Your task to perform on an android device: open a new tab in the chrome app Image 0: 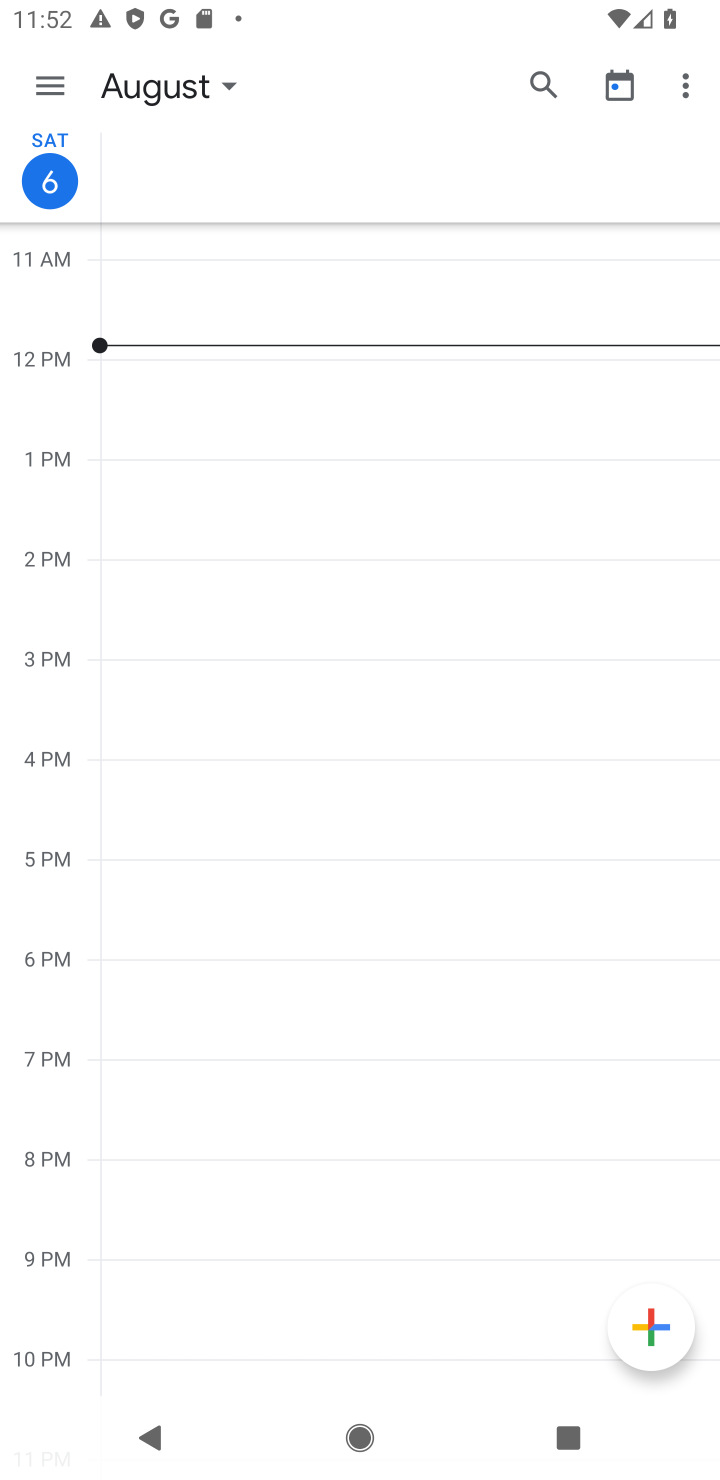
Step 0: press home button
Your task to perform on an android device: open a new tab in the chrome app Image 1: 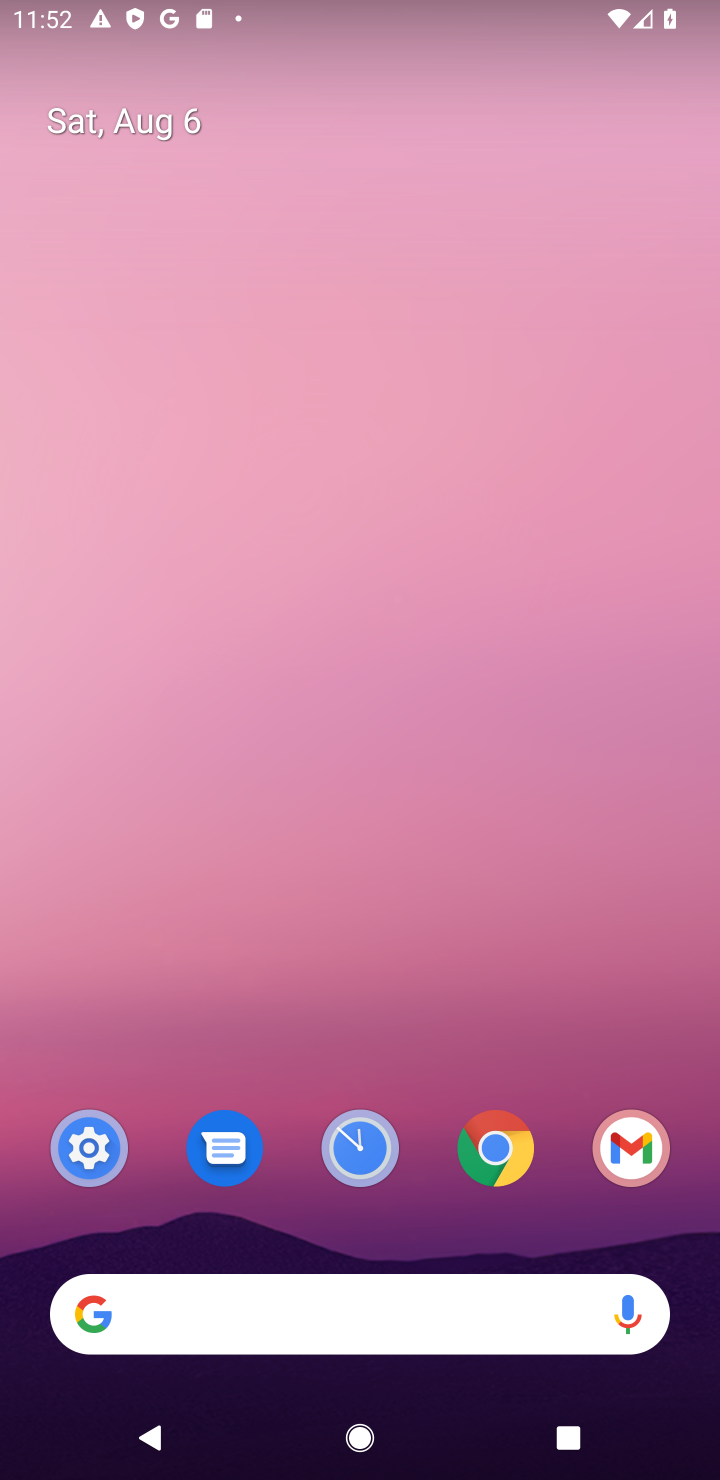
Step 1: click (498, 1143)
Your task to perform on an android device: open a new tab in the chrome app Image 2: 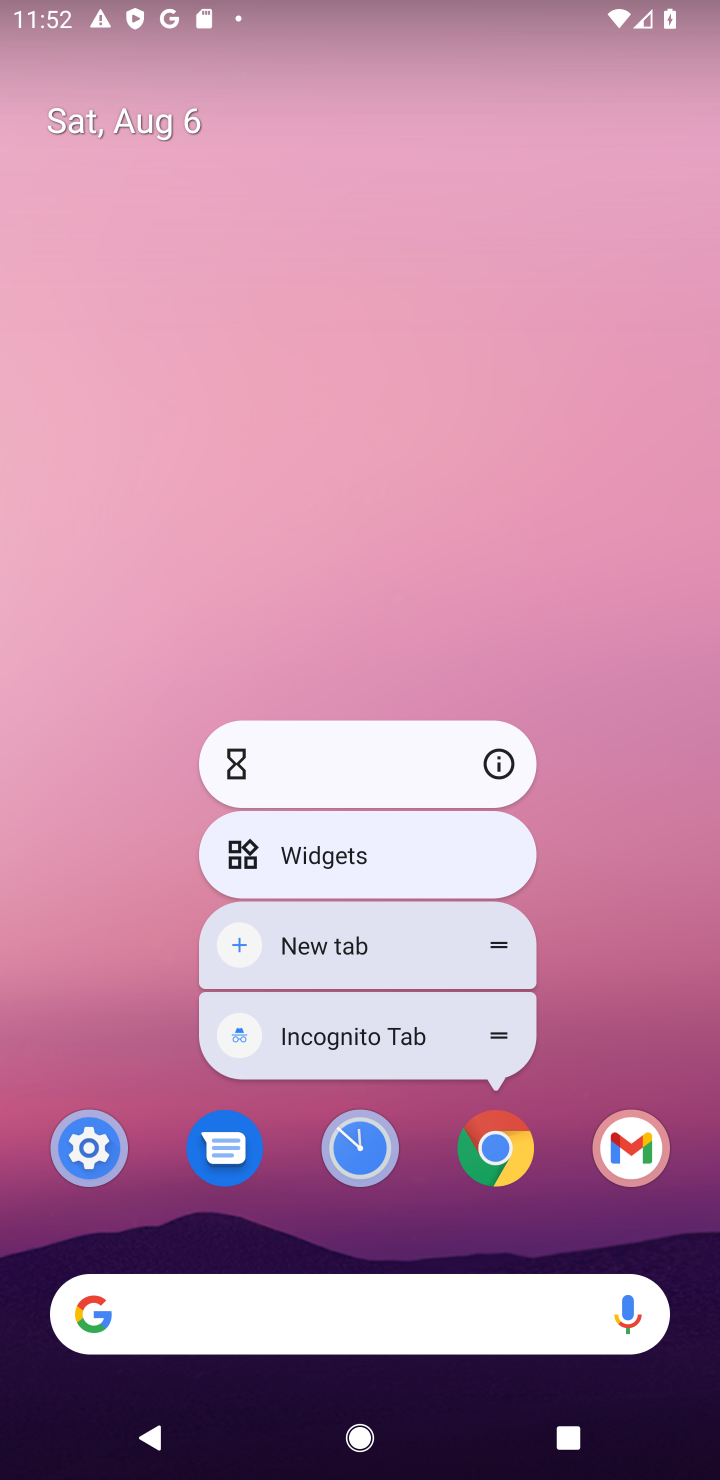
Step 2: click (498, 1143)
Your task to perform on an android device: open a new tab in the chrome app Image 3: 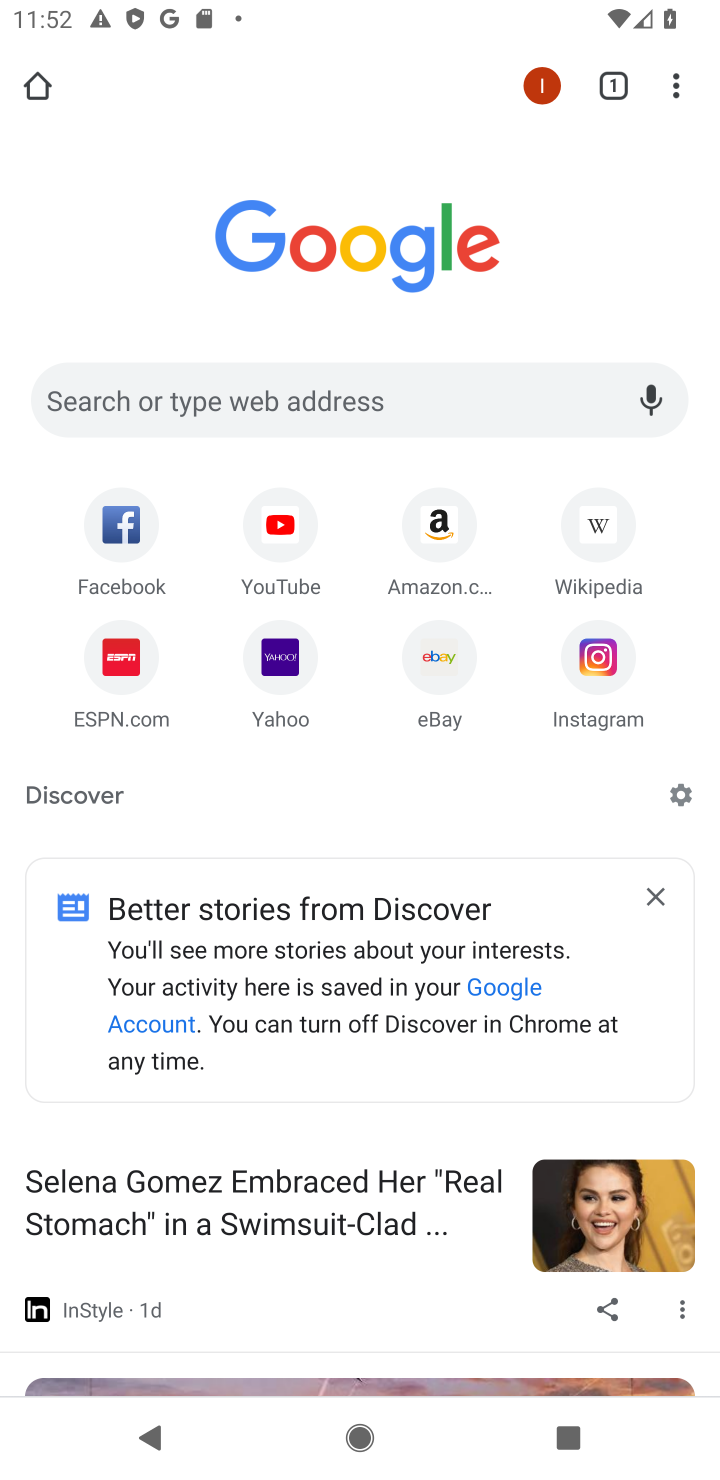
Step 3: click (685, 84)
Your task to perform on an android device: open a new tab in the chrome app Image 4: 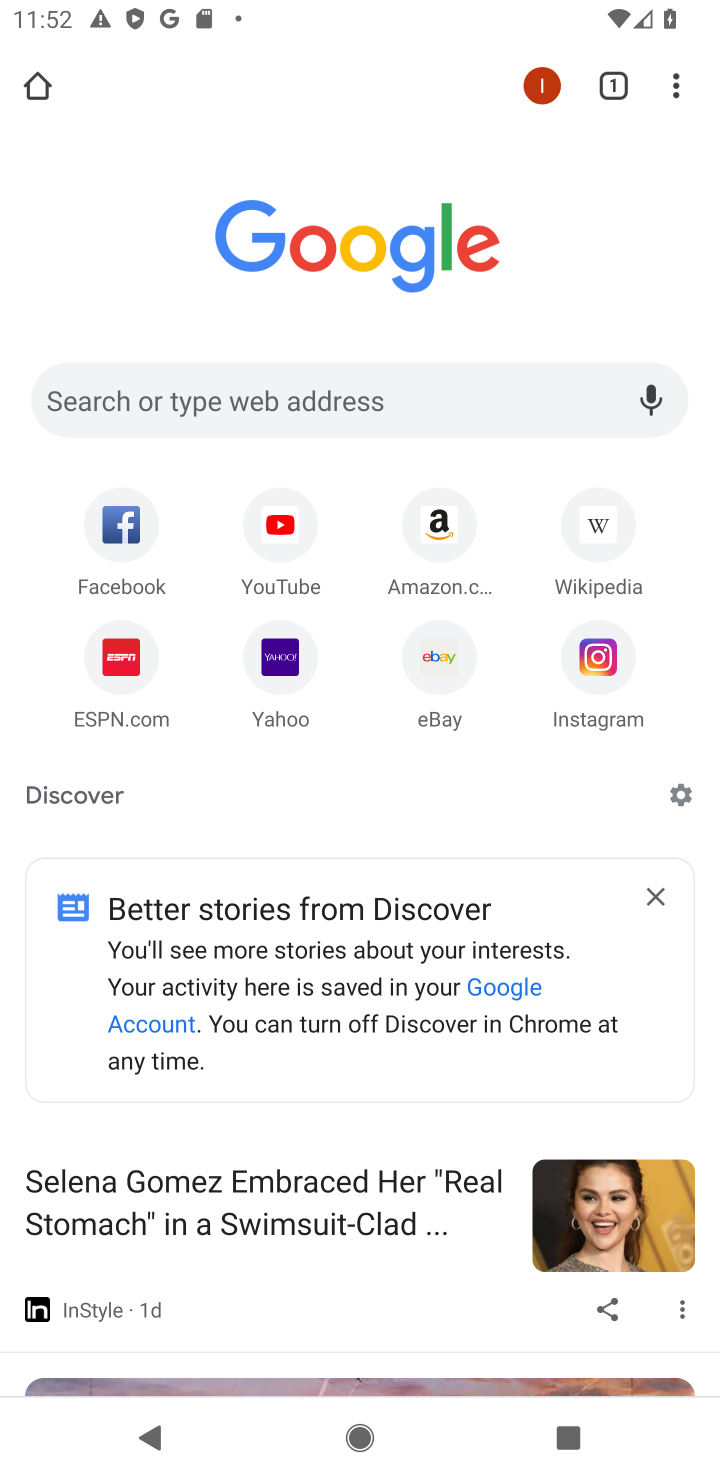
Step 4: click (668, 86)
Your task to perform on an android device: open a new tab in the chrome app Image 5: 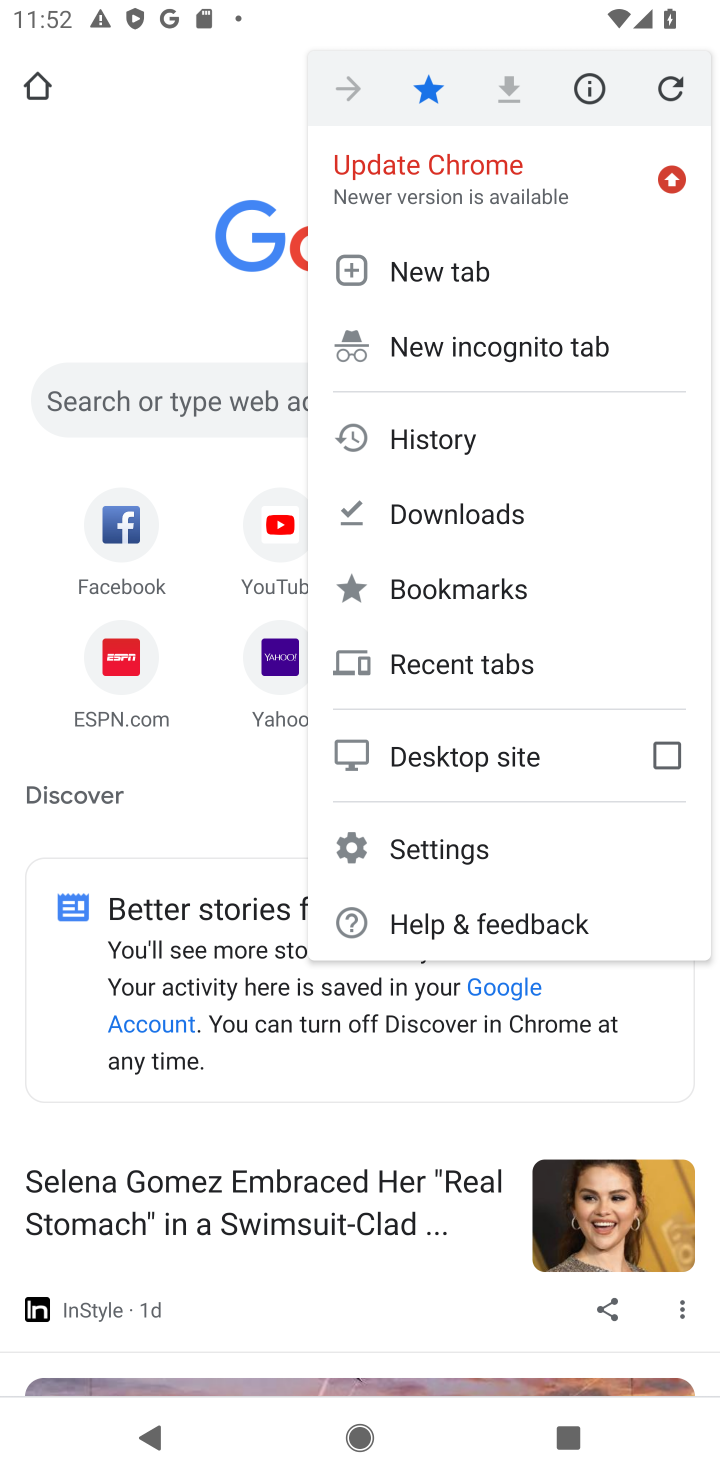
Step 5: click (440, 263)
Your task to perform on an android device: open a new tab in the chrome app Image 6: 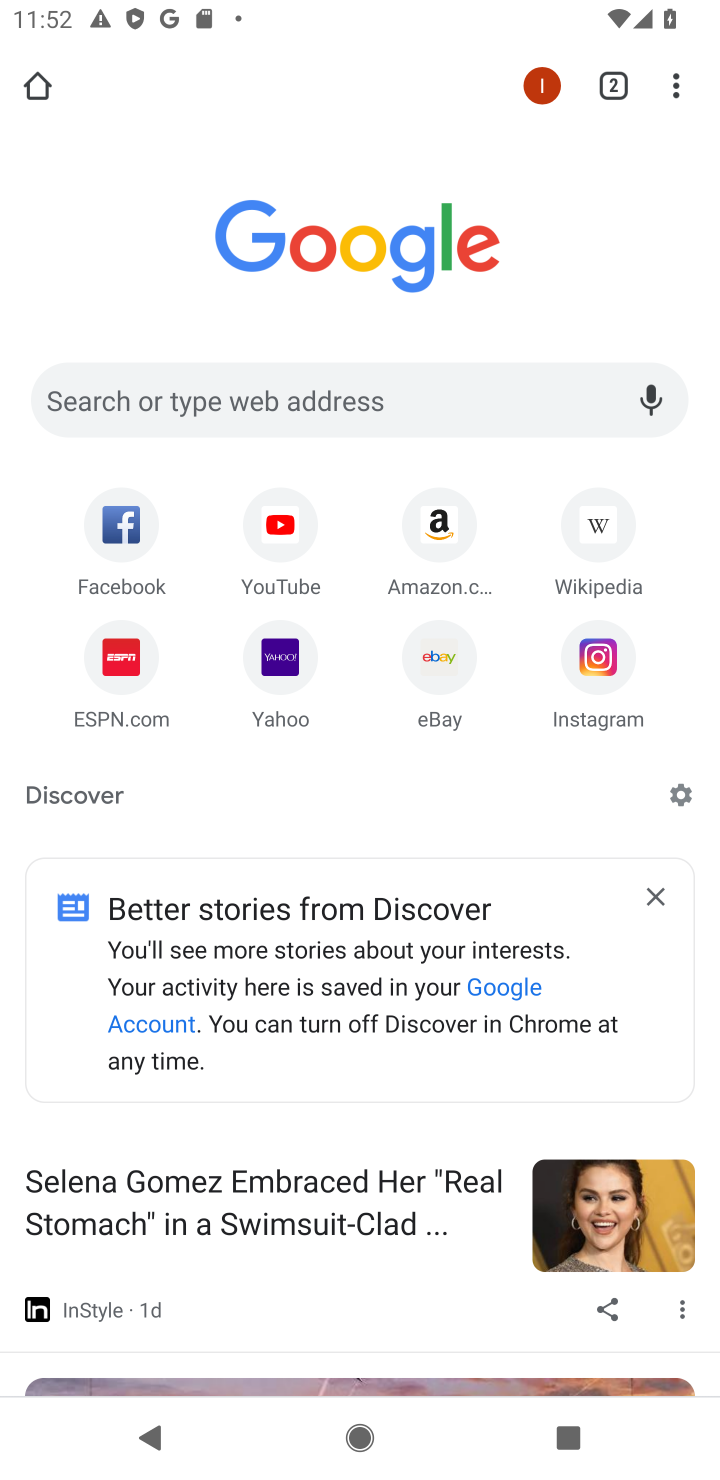
Step 6: task complete